Your task to perform on an android device: open the mobile data screen to see how much data has been used Image 0: 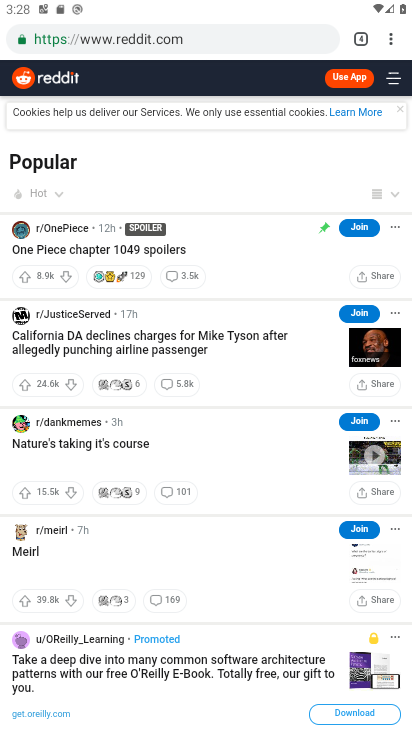
Step 0: press home button
Your task to perform on an android device: open the mobile data screen to see how much data has been used Image 1: 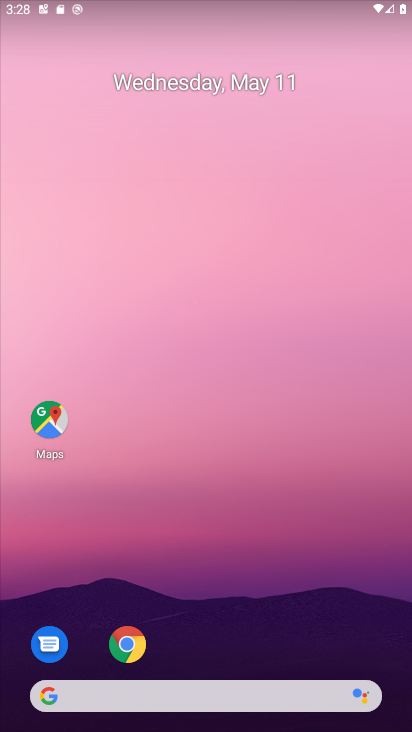
Step 1: drag from (198, 681) to (132, 46)
Your task to perform on an android device: open the mobile data screen to see how much data has been used Image 2: 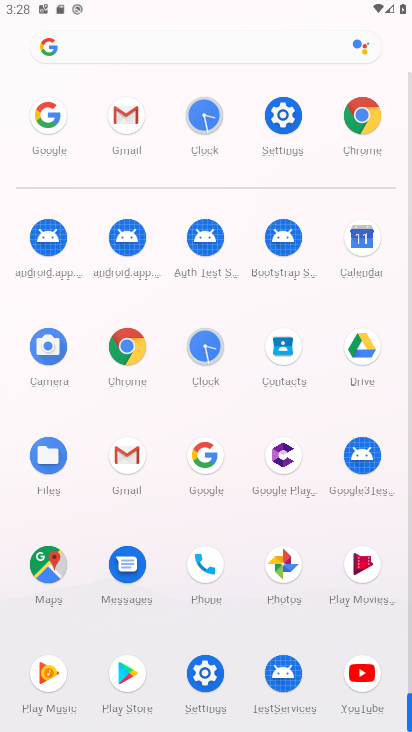
Step 2: click (286, 104)
Your task to perform on an android device: open the mobile data screen to see how much data has been used Image 3: 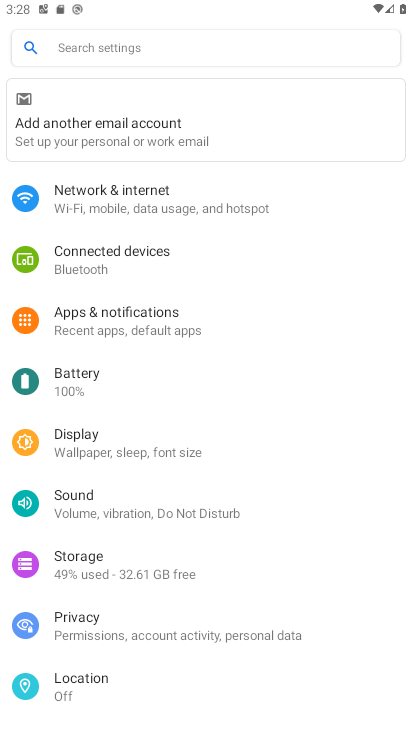
Step 3: click (128, 200)
Your task to perform on an android device: open the mobile data screen to see how much data has been used Image 4: 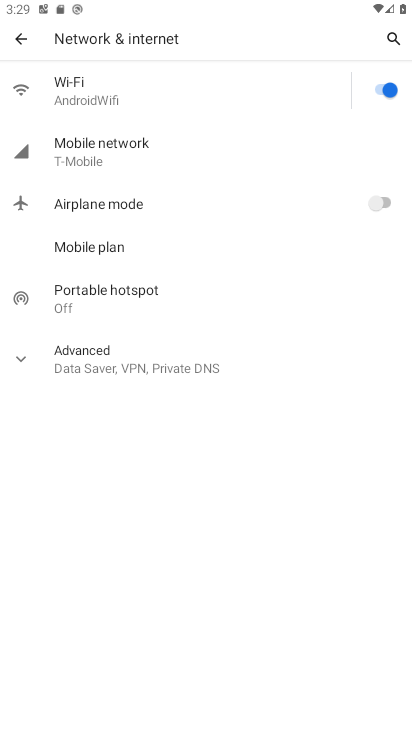
Step 4: click (95, 131)
Your task to perform on an android device: open the mobile data screen to see how much data has been used Image 5: 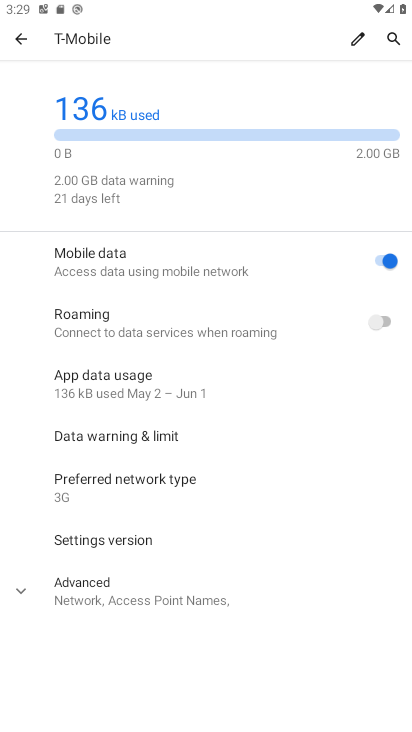
Step 5: task complete